Your task to perform on an android device: change text size in settings app Image 0: 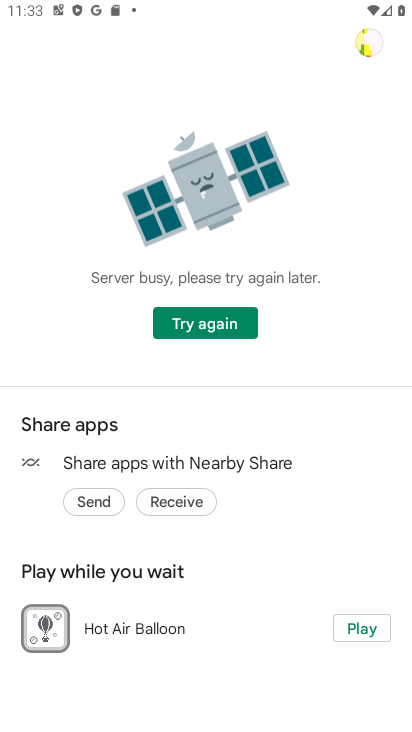
Step 0: press home button
Your task to perform on an android device: change text size in settings app Image 1: 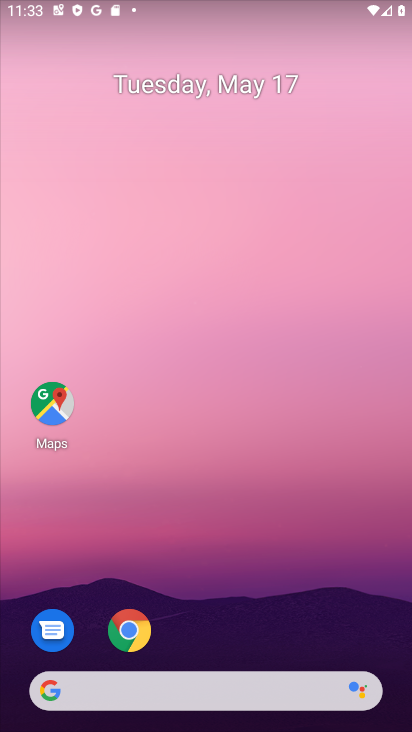
Step 1: drag from (195, 632) to (277, 186)
Your task to perform on an android device: change text size in settings app Image 2: 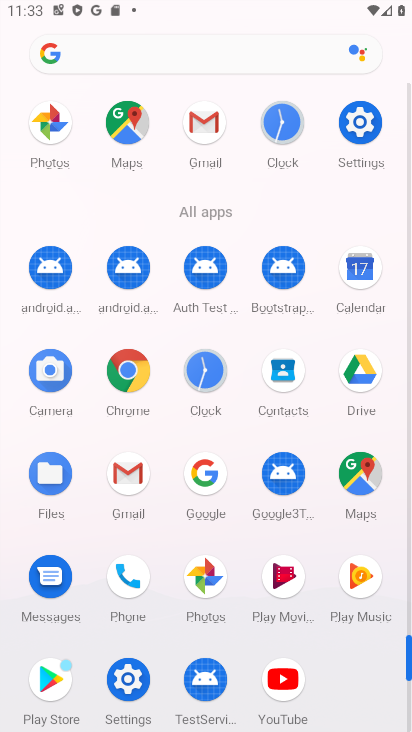
Step 2: drag from (155, 576) to (239, 335)
Your task to perform on an android device: change text size in settings app Image 3: 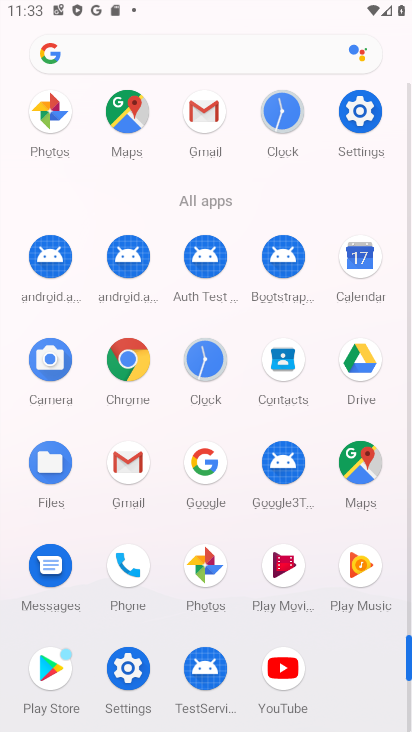
Step 3: click (129, 693)
Your task to perform on an android device: change text size in settings app Image 4: 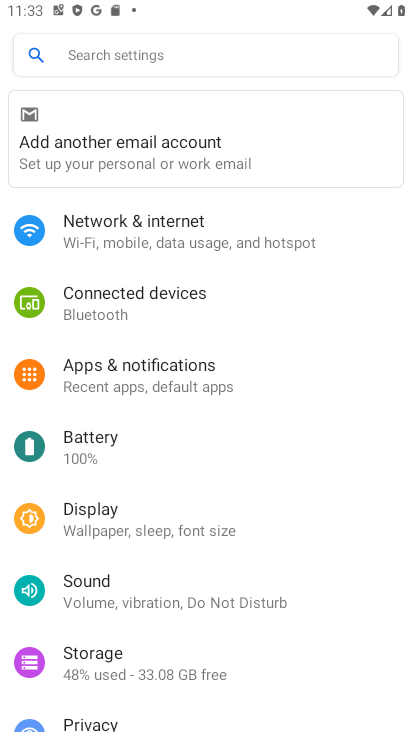
Step 4: click (172, 532)
Your task to perform on an android device: change text size in settings app Image 5: 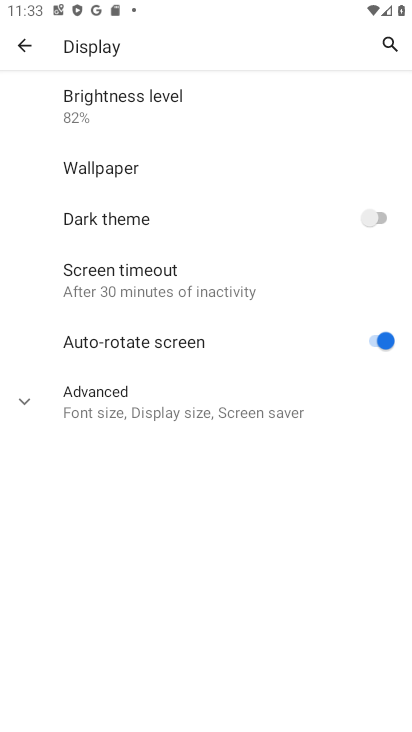
Step 5: click (186, 411)
Your task to perform on an android device: change text size in settings app Image 6: 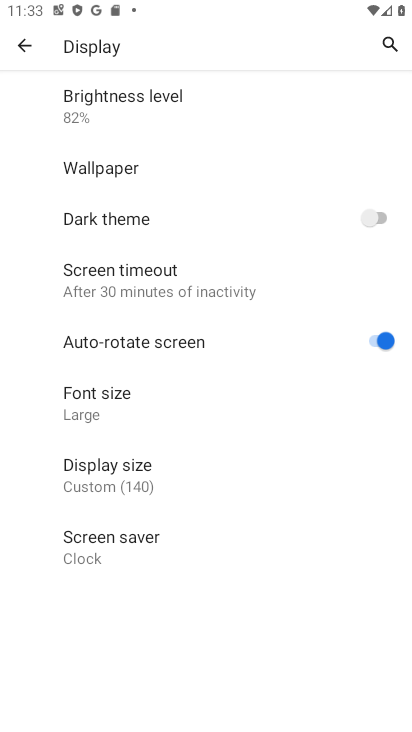
Step 6: click (200, 409)
Your task to perform on an android device: change text size in settings app Image 7: 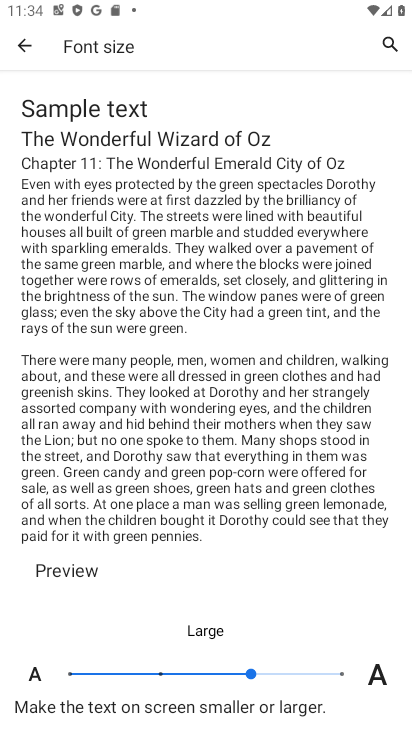
Step 7: click (341, 676)
Your task to perform on an android device: change text size in settings app Image 8: 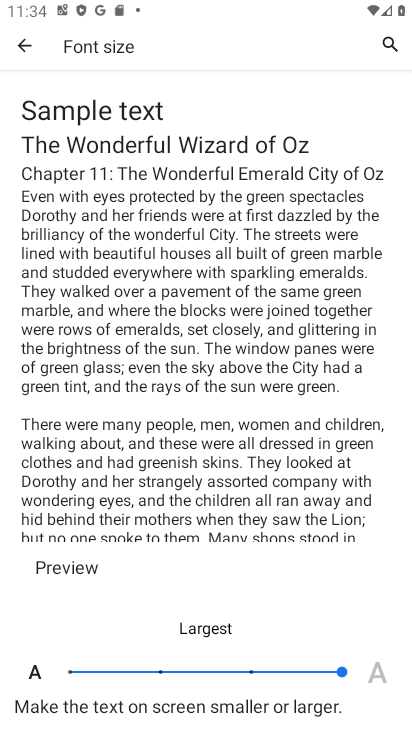
Step 8: task complete